Your task to perform on an android device: turn vacation reply on in the gmail app Image 0: 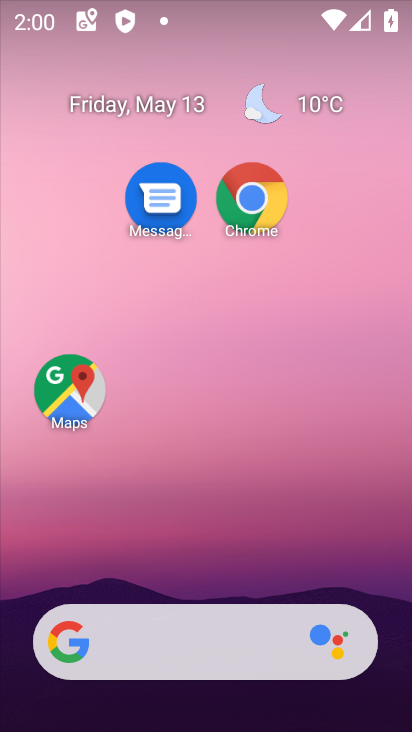
Step 0: drag from (223, 617) to (180, 78)
Your task to perform on an android device: turn vacation reply on in the gmail app Image 1: 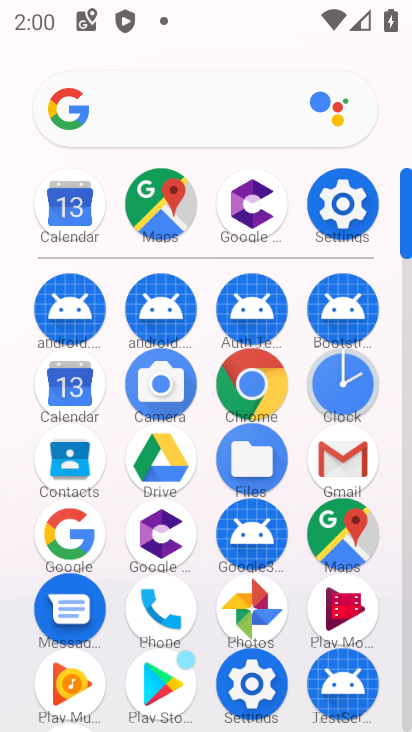
Step 1: click (355, 458)
Your task to perform on an android device: turn vacation reply on in the gmail app Image 2: 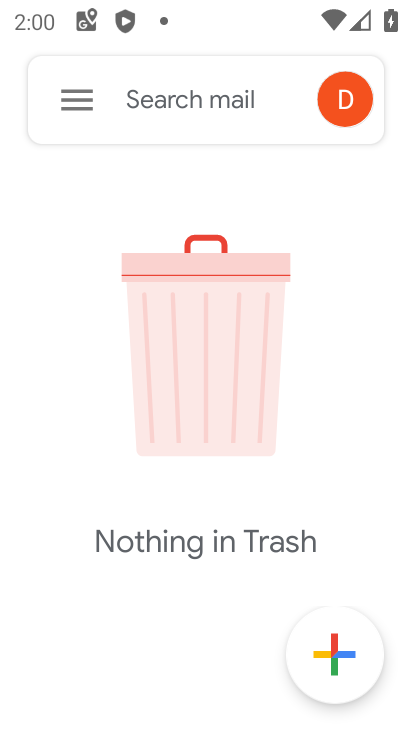
Step 2: click (82, 109)
Your task to perform on an android device: turn vacation reply on in the gmail app Image 3: 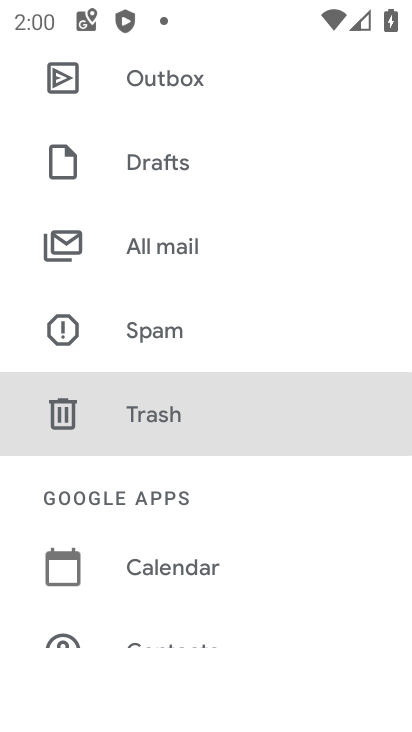
Step 3: drag from (179, 542) to (177, 213)
Your task to perform on an android device: turn vacation reply on in the gmail app Image 4: 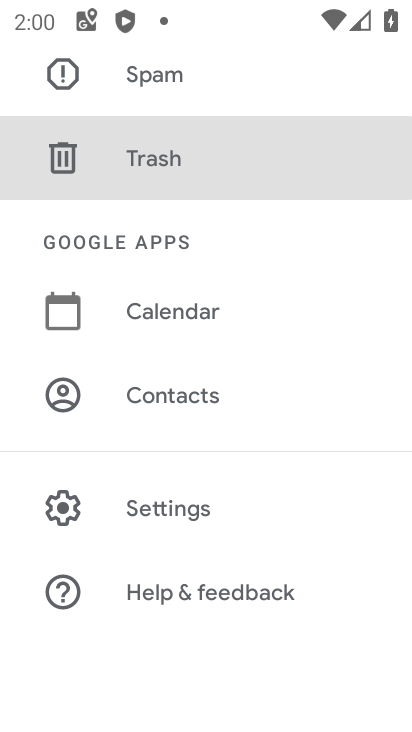
Step 4: click (174, 518)
Your task to perform on an android device: turn vacation reply on in the gmail app Image 5: 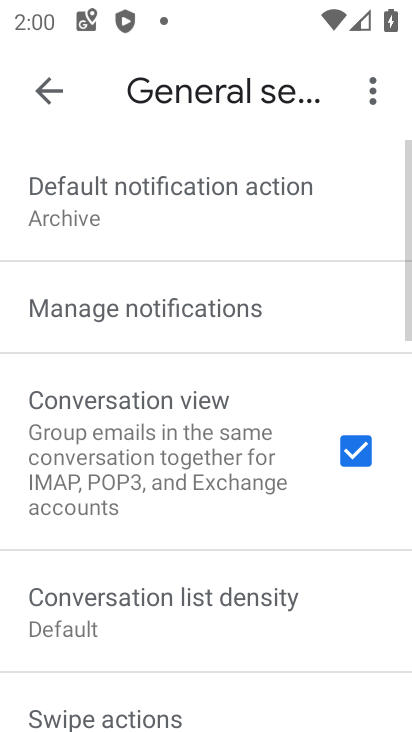
Step 5: click (34, 89)
Your task to perform on an android device: turn vacation reply on in the gmail app Image 6: 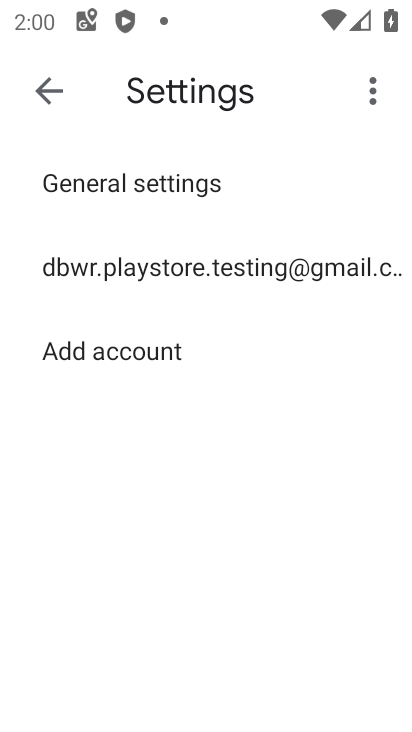
Step 6: click (127, 275)
Your task to perform on an android device: turn vacation reply on in the gmail app Image 7: 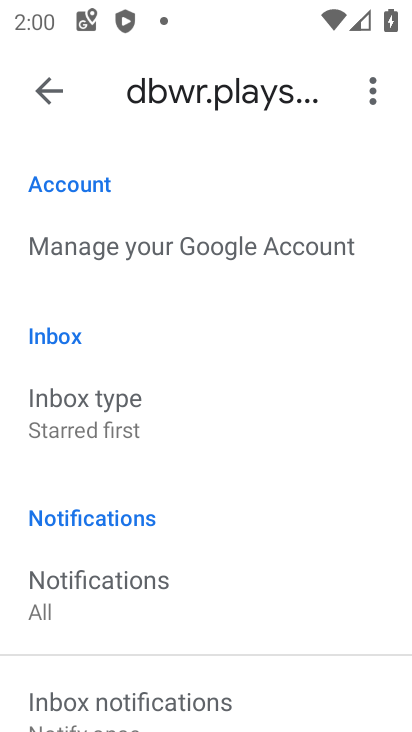
Step 7: drag from (136, 459) to (124, 136)
Your task to perform on an android device: turn vacation reply on in the gmail app Image 8: 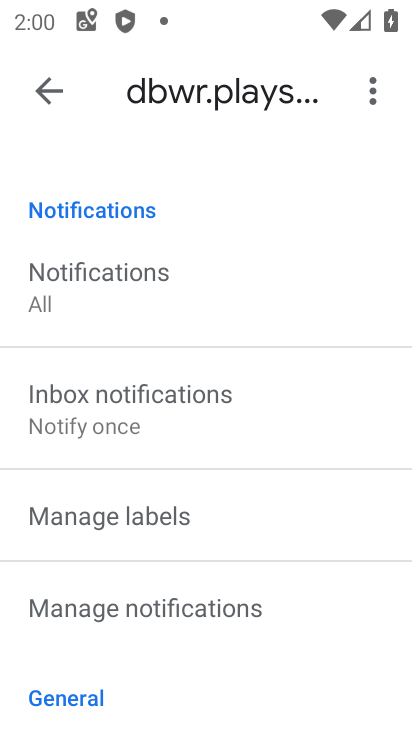
Step 8: drag from (207, 583) to (134, 85)
Your task to perform on an android device: turn vacation reply on in the gmail app Image 9: 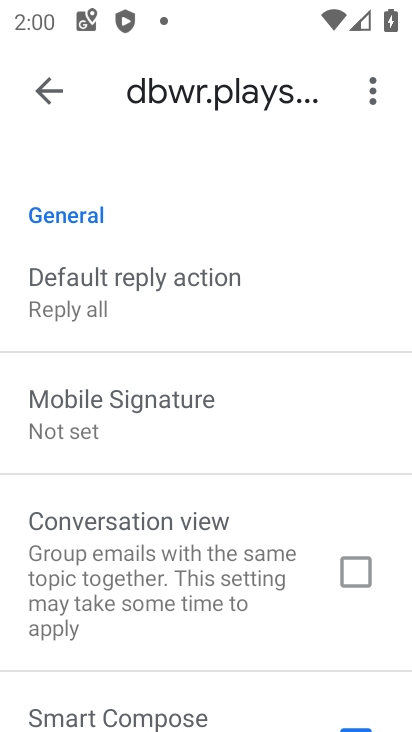
Step 9: drag from (210, 591) to (171, 132)
Your task to perform on an android device: turn vacation reply on in the gmail app Image 10: 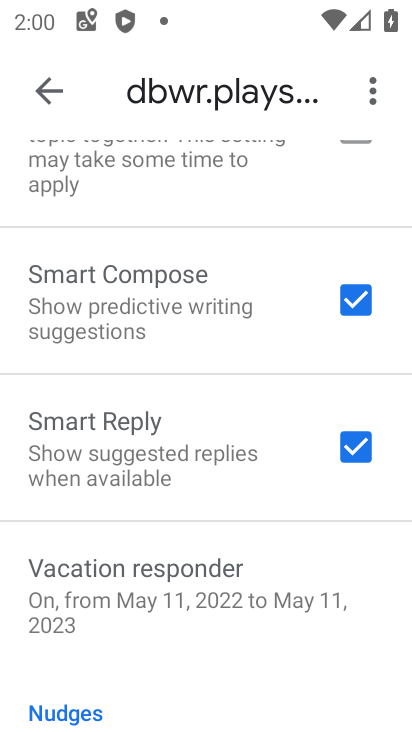
Step 10: click (242, 546)
Your task to perform on an android device: turn vacation reply on in the gmail app Image 11: 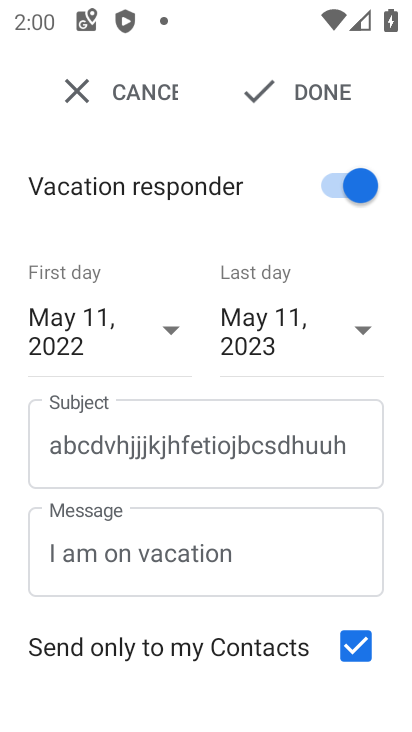
Step 11: click (290, 114)
Your task to perform on an android device: turn vacation reply on in the gmail app Image 12: 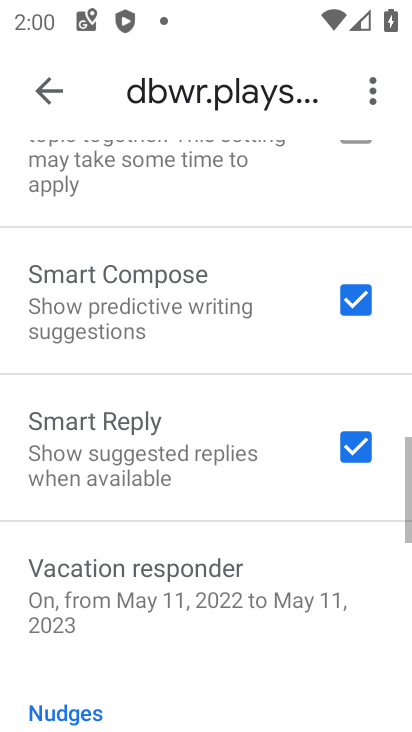
Step 12: task complete